Your task to perform on an android device: Go to Amazon Image 0: 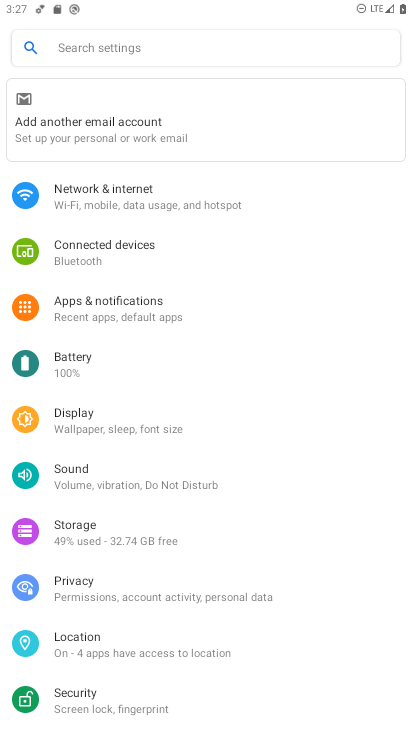
Step 0: press home button
Your task to perform on an android device: Go to Amazon Image 1: 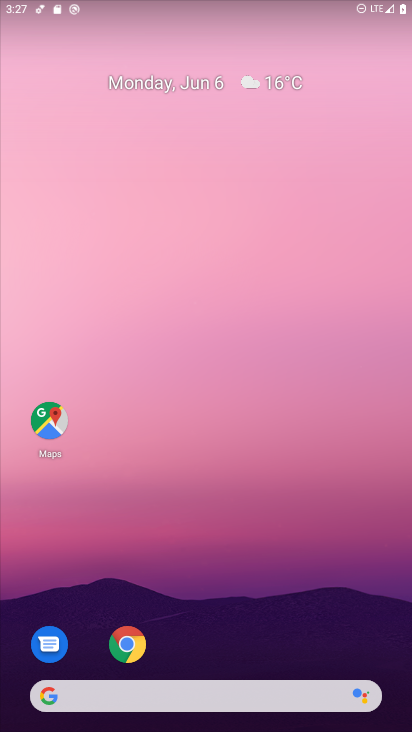
Step 1: click (127, 645)
Your task to perform on an android device: Go to Amazon Image 2: 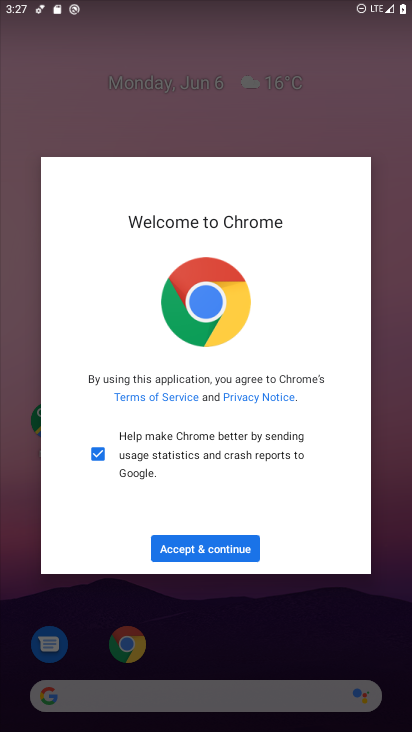
Step 2: click (223, 545)
Your task to perform on an android device: Go to Amazon Image 3: 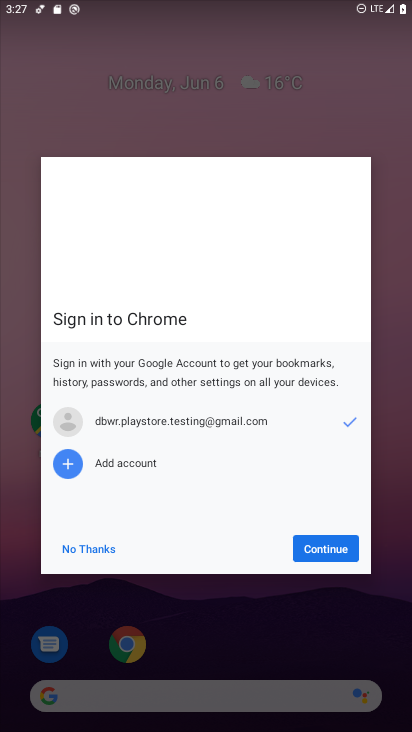
Step 3: click (72, 543)
Your task to perform on an android device: Go to Amazon Image 4: 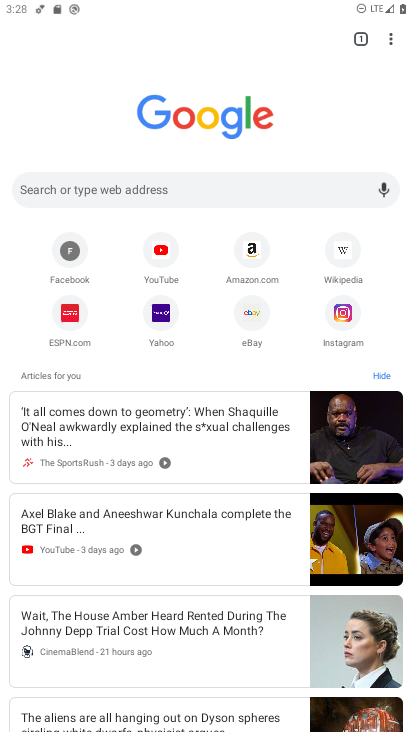
Step 4: click (251, 256)
Your task to perform on an android device: Go to Amazon Image 5: 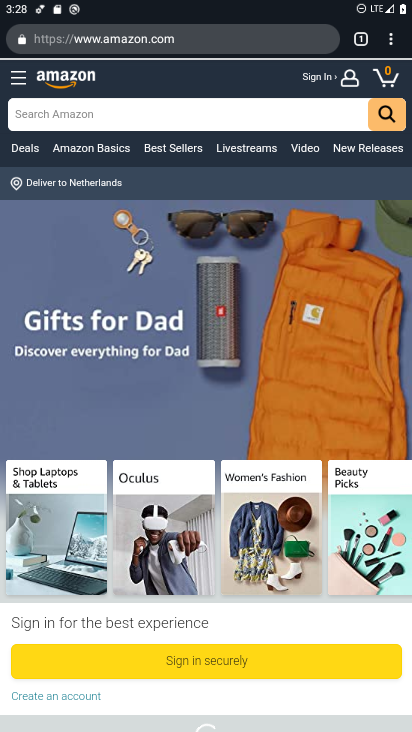
Step 5: task complete